Your task to perform on an android device: open app "Google Maps" (install if not already installed) Image 0: 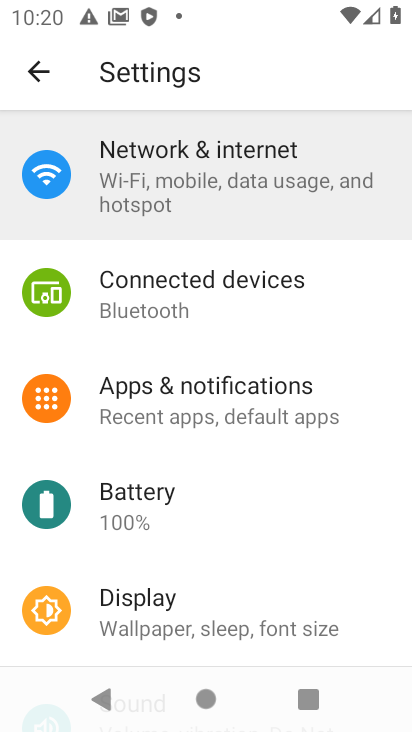
Step 0: press home button
Your task to perform on an android device: open app "Google Maps" (install if not already installed) Image 1: 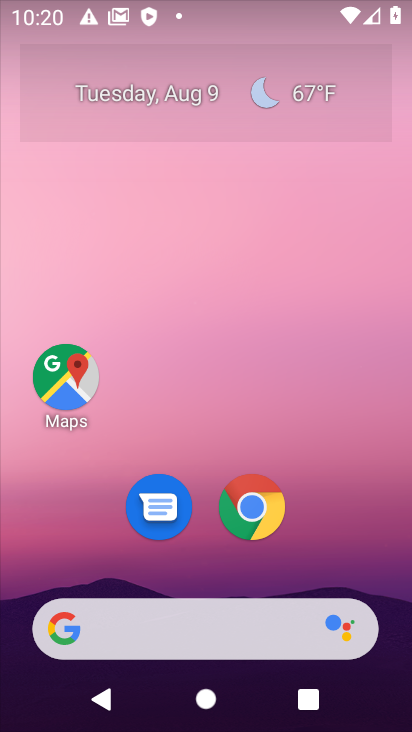
Step 1: drag from (290, 524) to (287, 13)
Your task to perform on an android device: open app "Google Maps" (install if not already installed) Image 2: 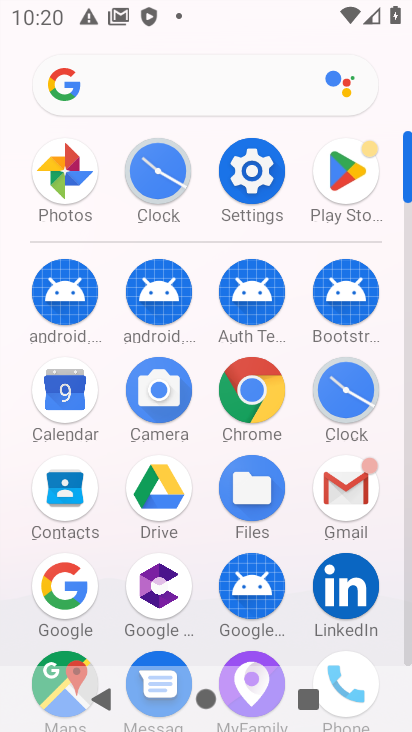
Step 2: click (351, 178)
Your task to perform on an android device: open app "Google Maps" (install if not already installed) Image 3: 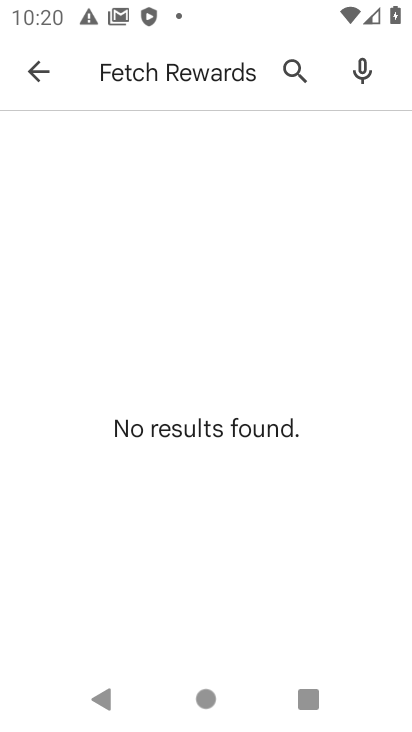
Step 3: click (29, 85)
Your task to perform on an android device: open app "Google Maps" (install if not already installed) Image 4: 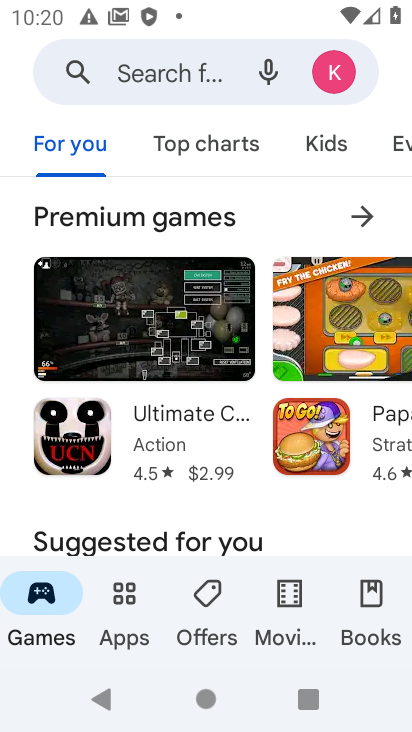
Step 4: click (149, 75)
Your task to perform on an android device: open app "Google Maps" (install if not already installed) Image 5: 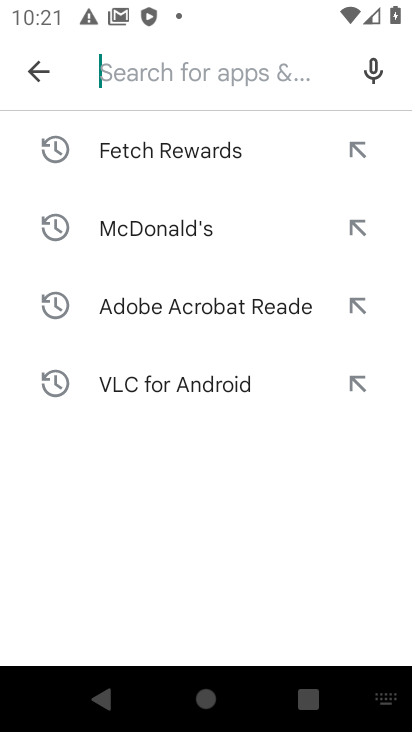
Step 5: type "Fetch Rewards"
Your task to perform on an android device: open app "Google Maps" (install if not already installed) Image 6: 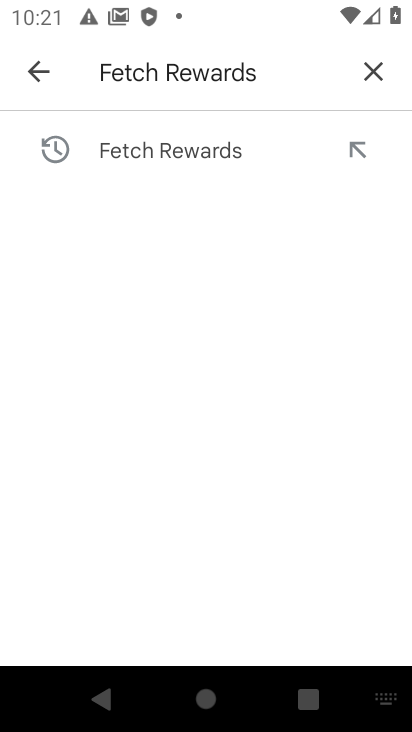
Step 6: click (371, 67)
Your task to perform on an android device: open app "Google Maps" (install if not already installed) Image 7: 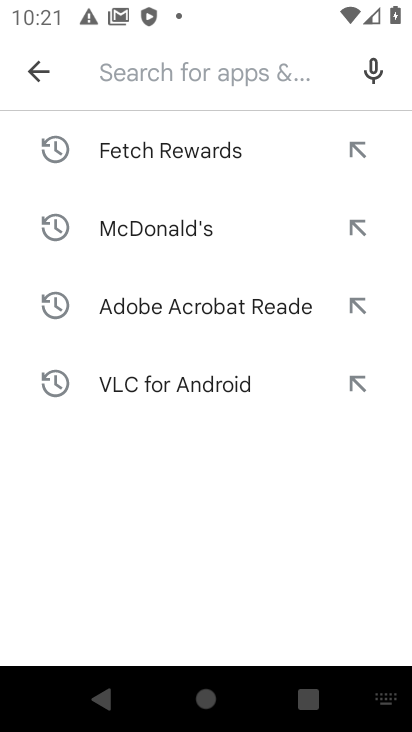
Step 7: type "Google Maps"
Your task to perform on an android device: open app "Google Maps" (install if not already installed) Image 8: 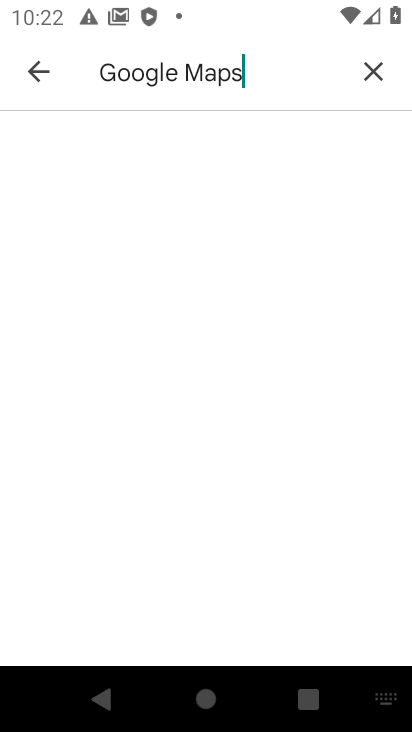
Step 8: press enter
Your task to perform on an android device: open app "Google Maps" (install if not already installed) Image 9: 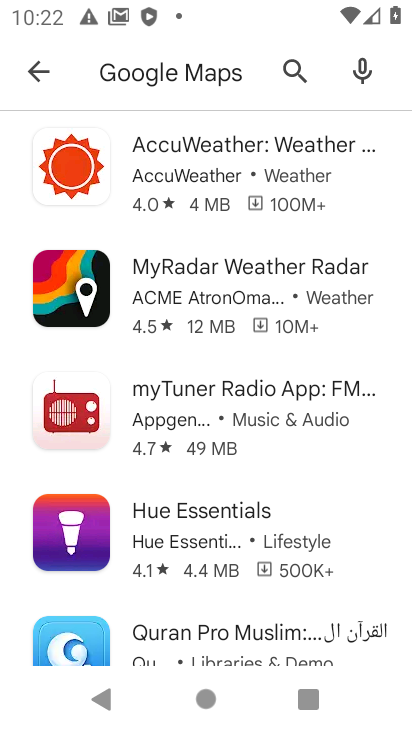
Step 9: task complete